Your task to perform on an android device: Search for vegetarian restaurants on Maps Image 0: 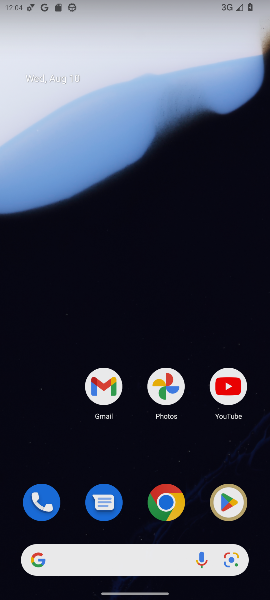
Step 0: press home button
Your task to perform on an android device: Search for vegetarian restaurants on Maps Image 1: 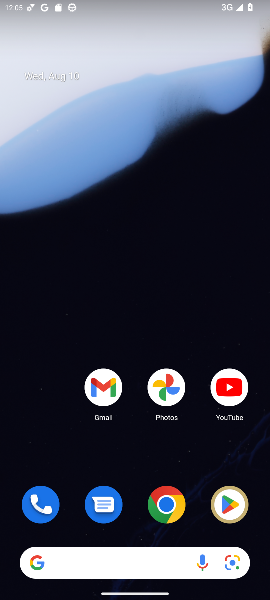
Step 1: drag from (138, 524) to (192, 206)
Your task to perform on an android device: Search for vegetarian restaurants on Maps Image 2: 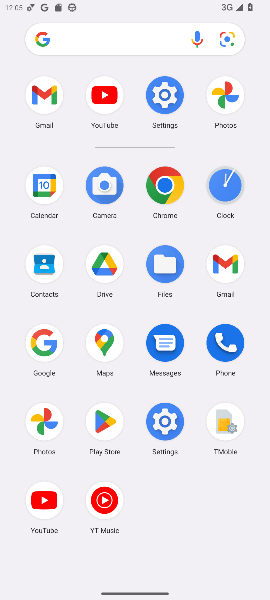
Step 2: click (101, 346)
Your task to perform on an android device: Search for vegetarian restaurants on Maps Image 3: 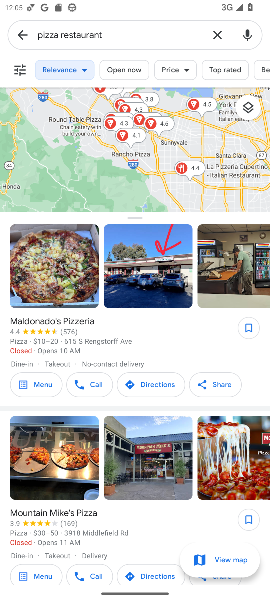
Step 3: press back button
Your task to perform on an android device: Search for vegetarian restaurants on Maps Image 4: 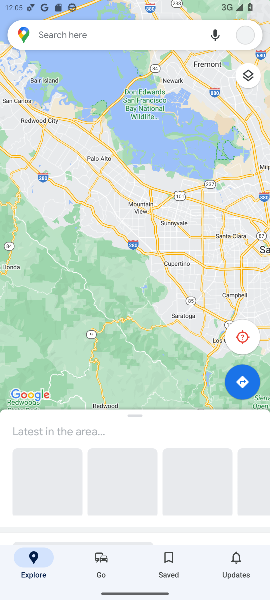
Step 4: click (101, 33)
Your task to perform on an android device: Search for vegetarian restaurants on Maps Image 5: 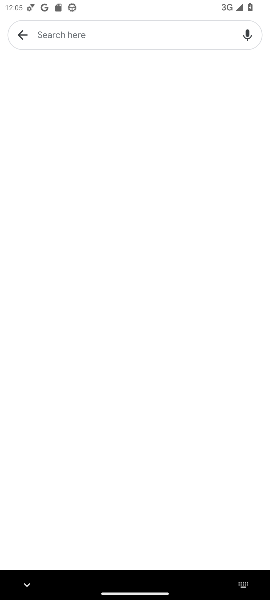
Step 5: click (82, 34)
Your task to perform on an android device: Search for vegetarian restaurants on Maps Image 6: 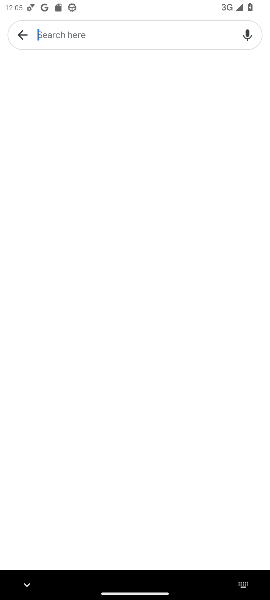
Step 6: click (95, 33)
Your task to perform on an android device: Search for vegetarian restaurants on Maps Image 7: 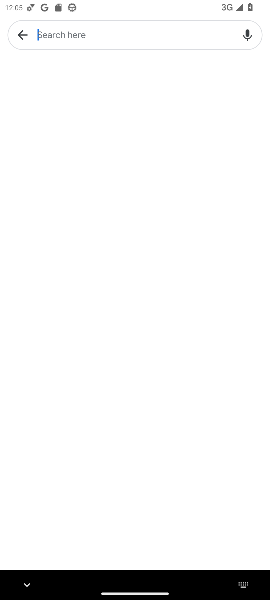
Step 7: type "vegetarian restaurants"
Your task to perform on an android device: Search for vegetarian restaurants on Maps Image 8: 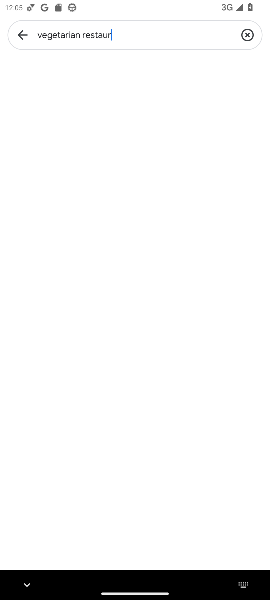
Step 8: press enter
Your task to perform on an android device: Search for vegetarian restaurants on Maps Image 9: 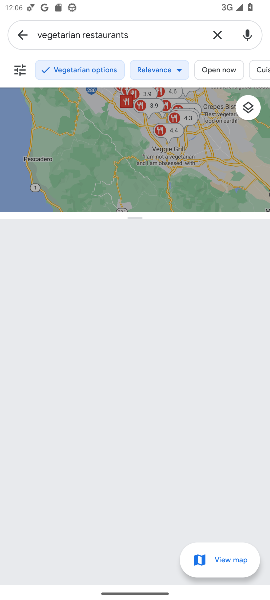
Step 9: task complete